Your task to perform on an android device: Open calendar and show me the second week of next month Image 0: 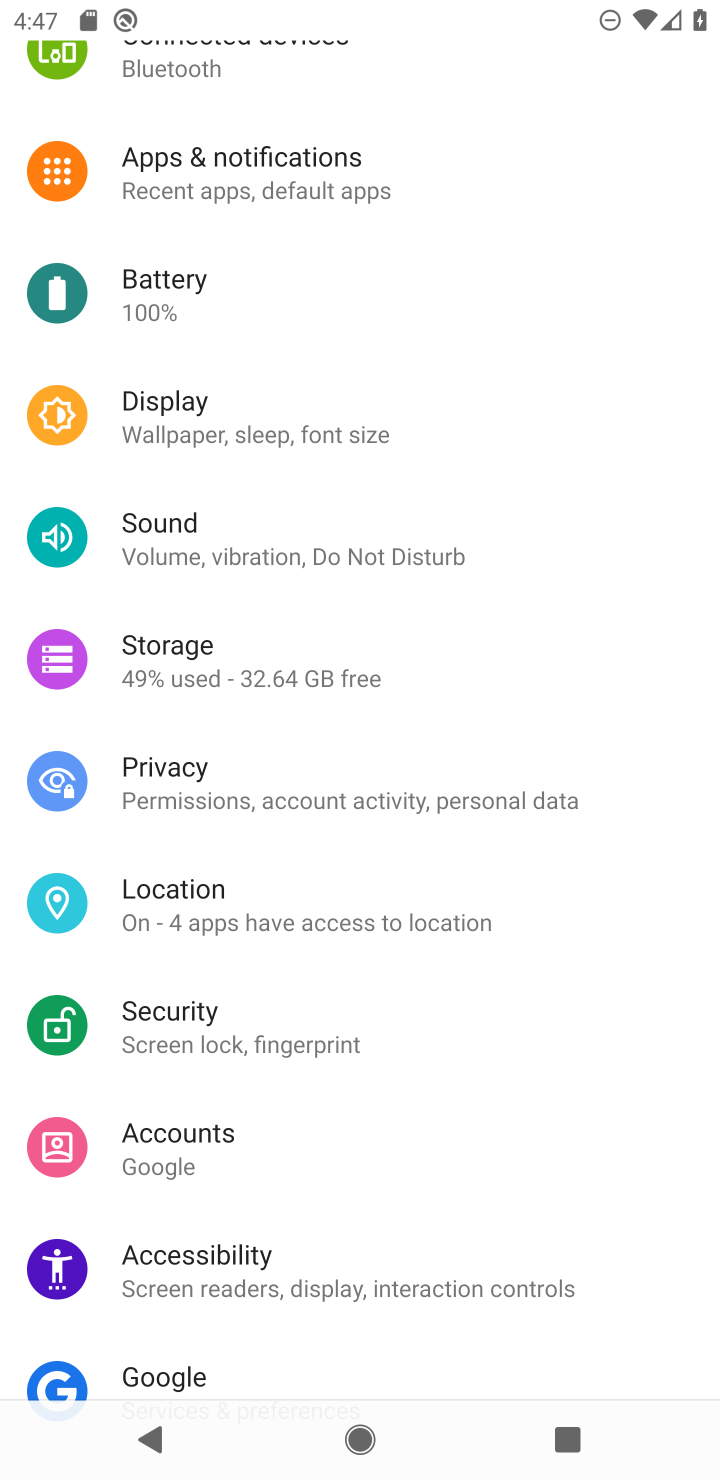
Step 0: press home button
Your task to perform on an android device: Open calendar and show me the second week of next month Image 1: 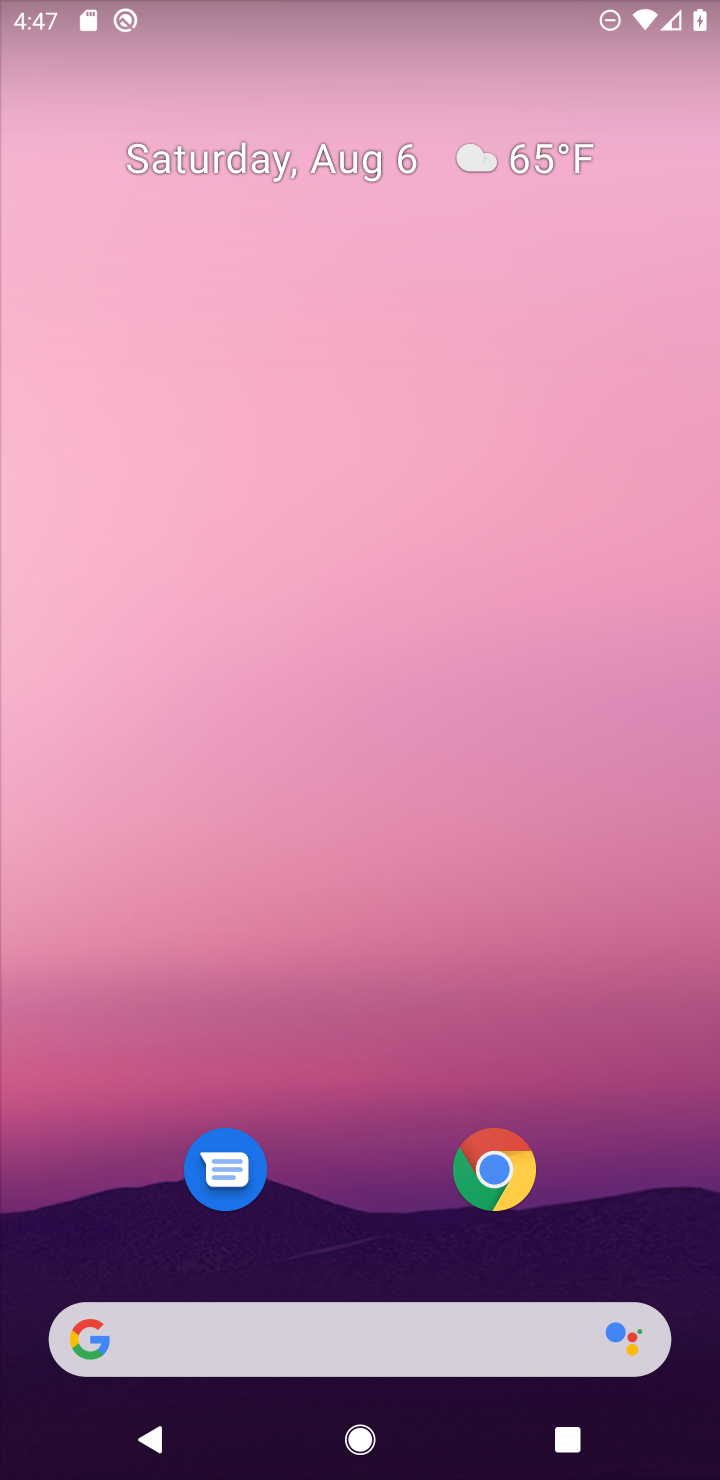
Step 1: drag from (358, 1136) to (98, 5)
Your task to perform on an android device: Open calendar and show me the second week of next month Image 2: 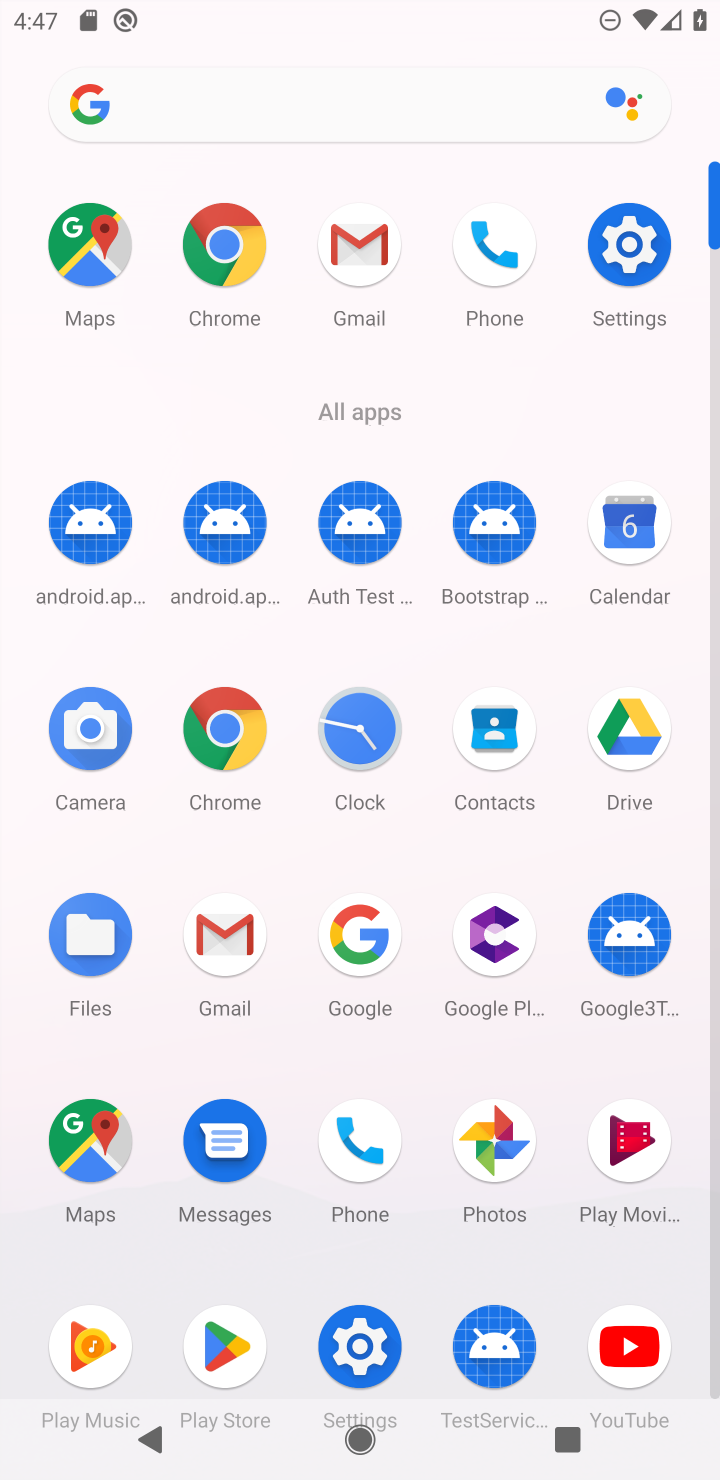
Step 2: click (625, 530)
Your task to perform on an android device: Open calendar and show me the second week of next month Image 3: 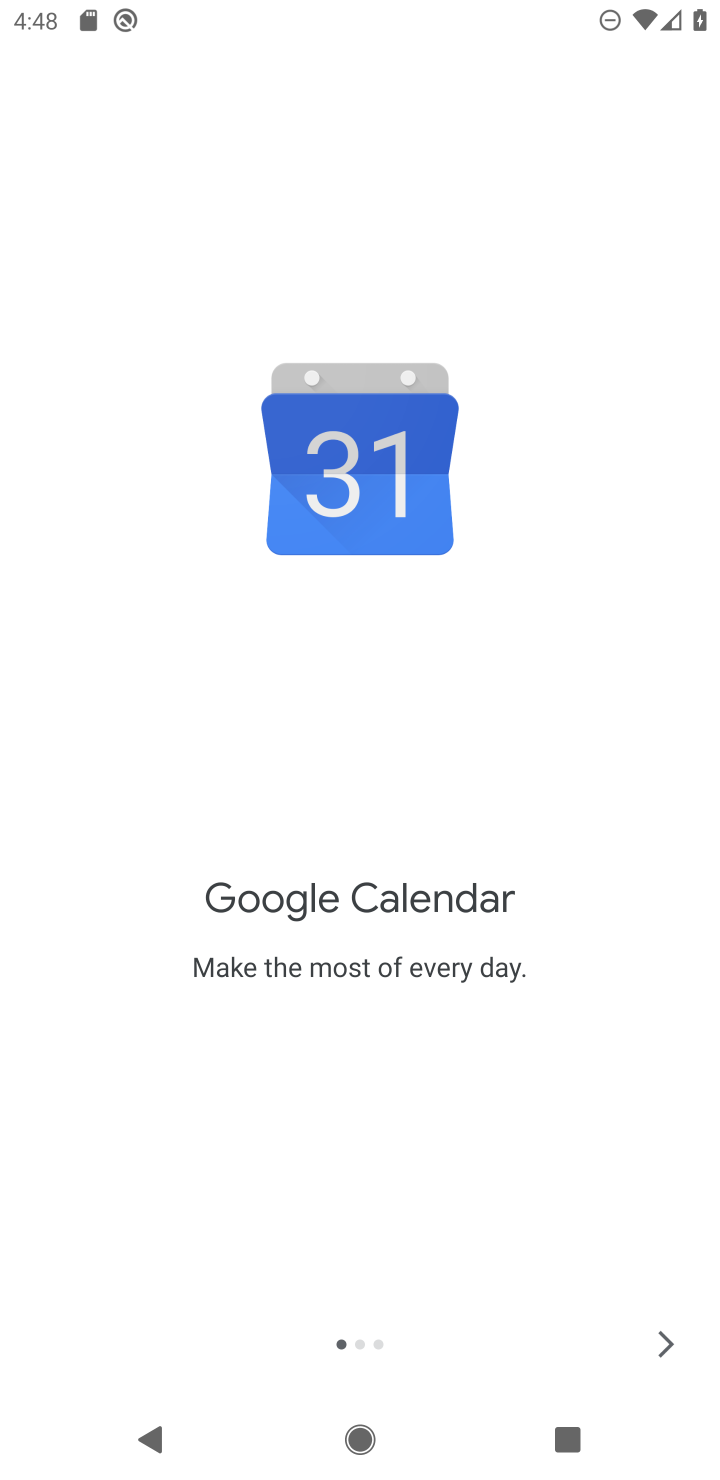
Step 3: click (675, 1337)
Your task to perform on an android device: Open calendar and show me the second week of next month Image 4: 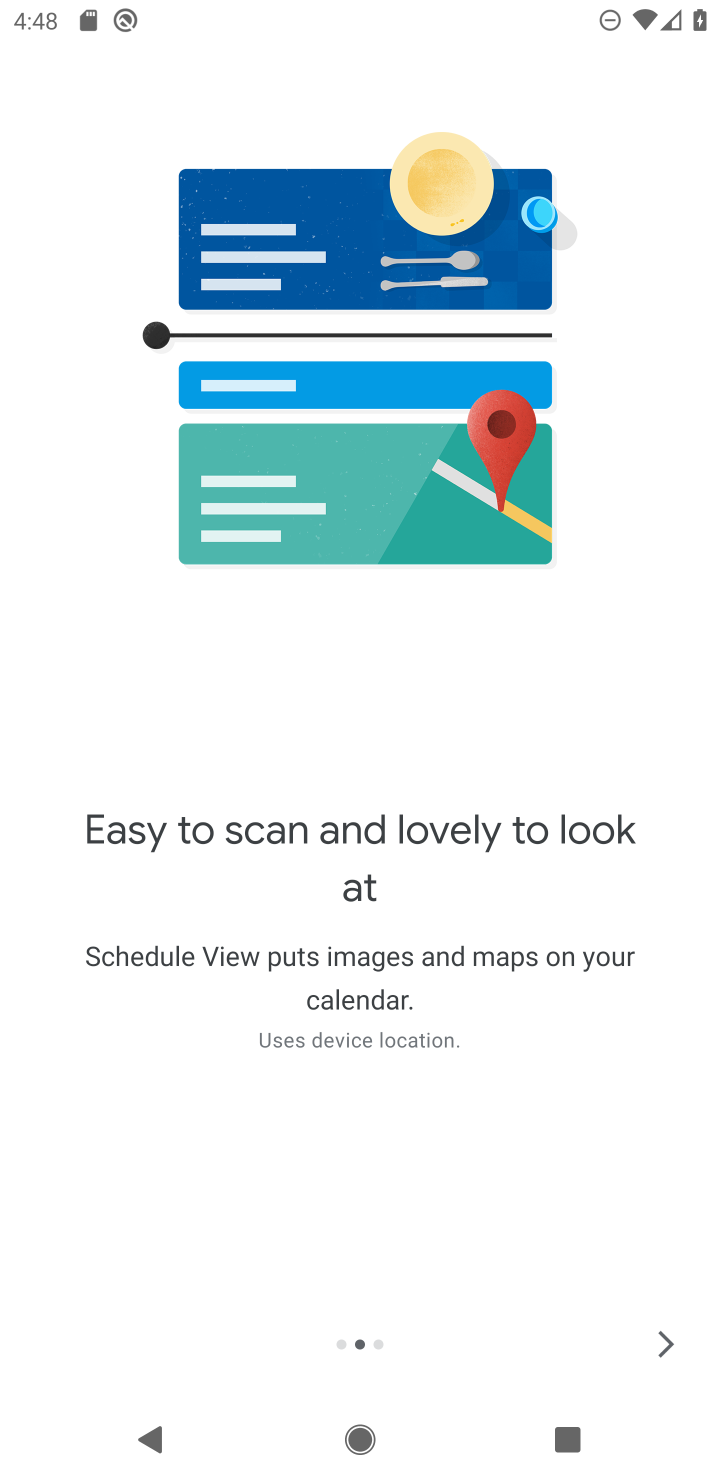
Step 4: click (668, 1342)
Your task to perform on an android device: Open calendar and show me the second week of next month Image 5: 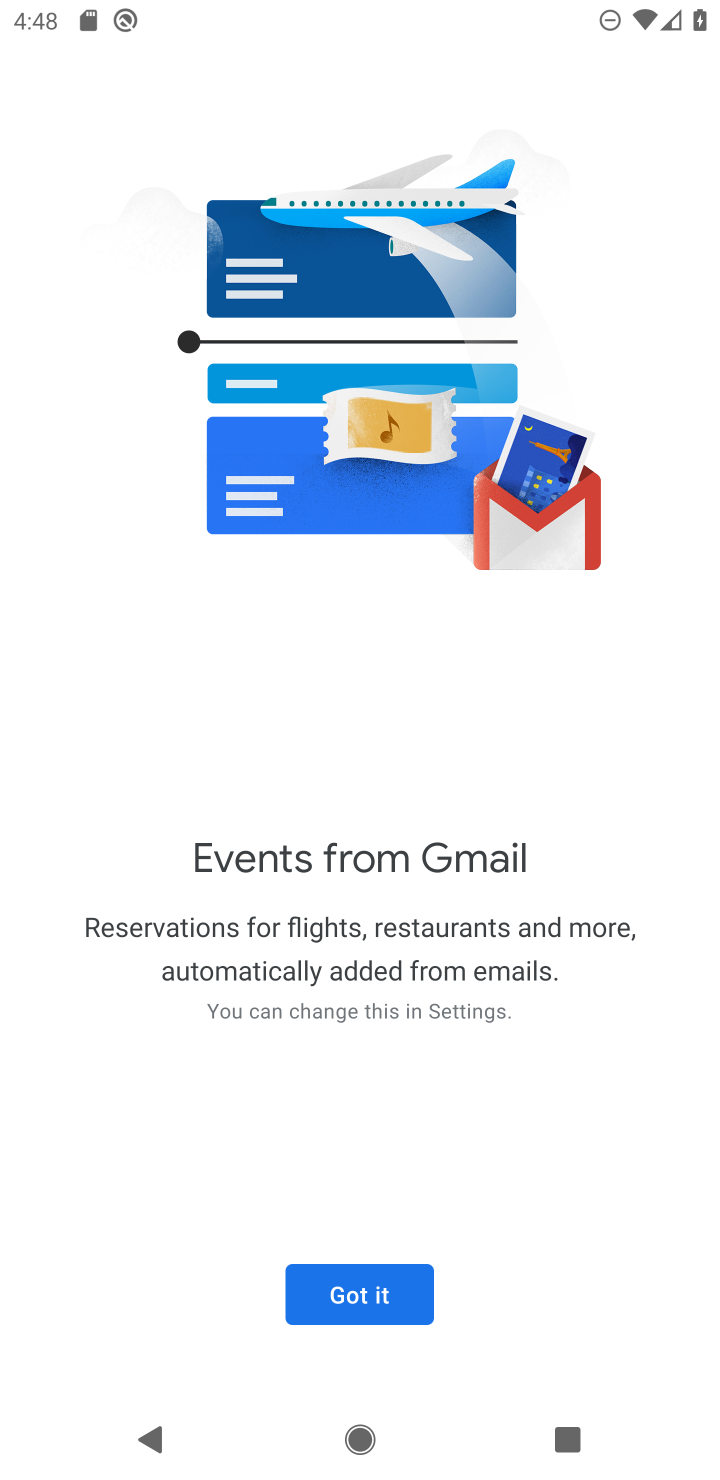
Step 5: click (361, 1290)
Your task to perform on an android device: Open calendar and show me the second week of next month Image 6: 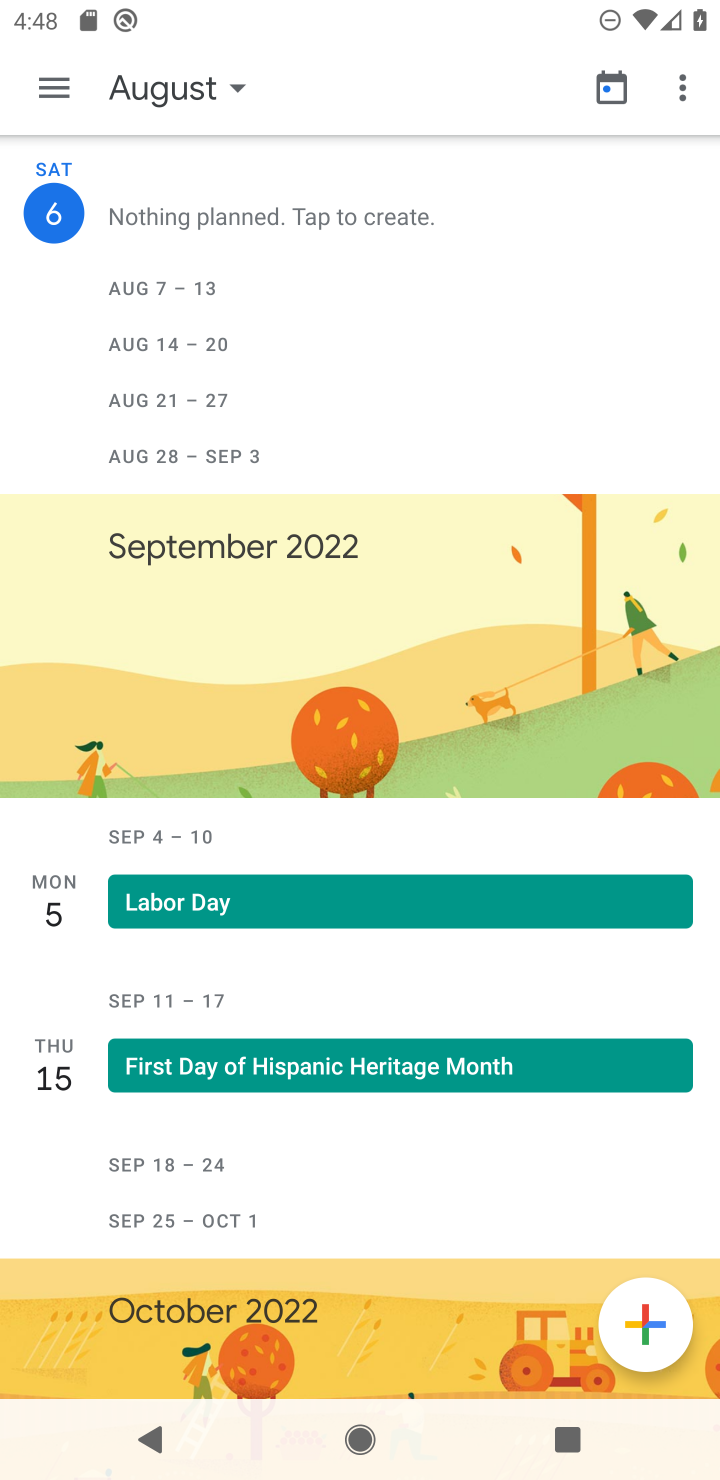
Step 6: click (211, 90)
Your task to perform on an android device: Open calendar and show me the second week of next month Image 7: 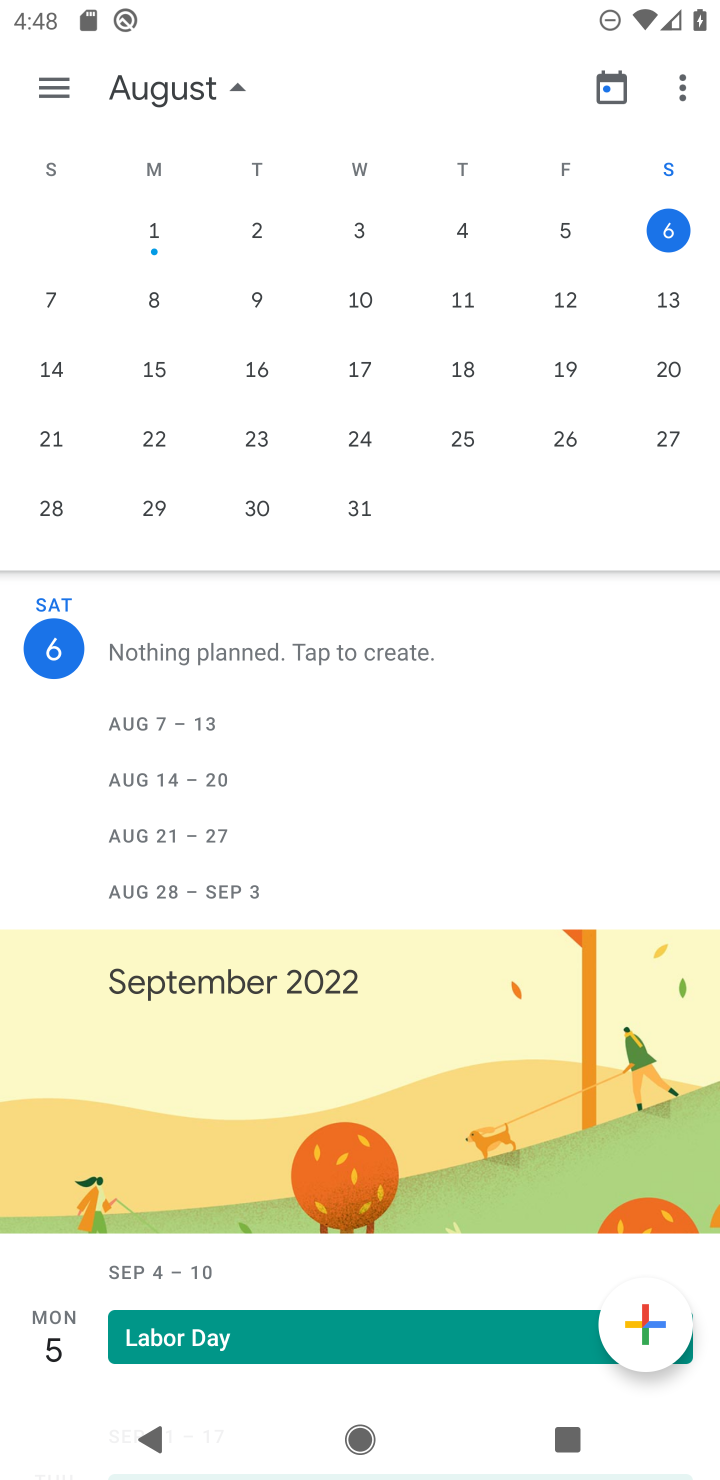
Step 7: drag from (705, 365) to (124, 357)
Your task to perform on an android device: Open calendar and show me the second week of next month Image 8: 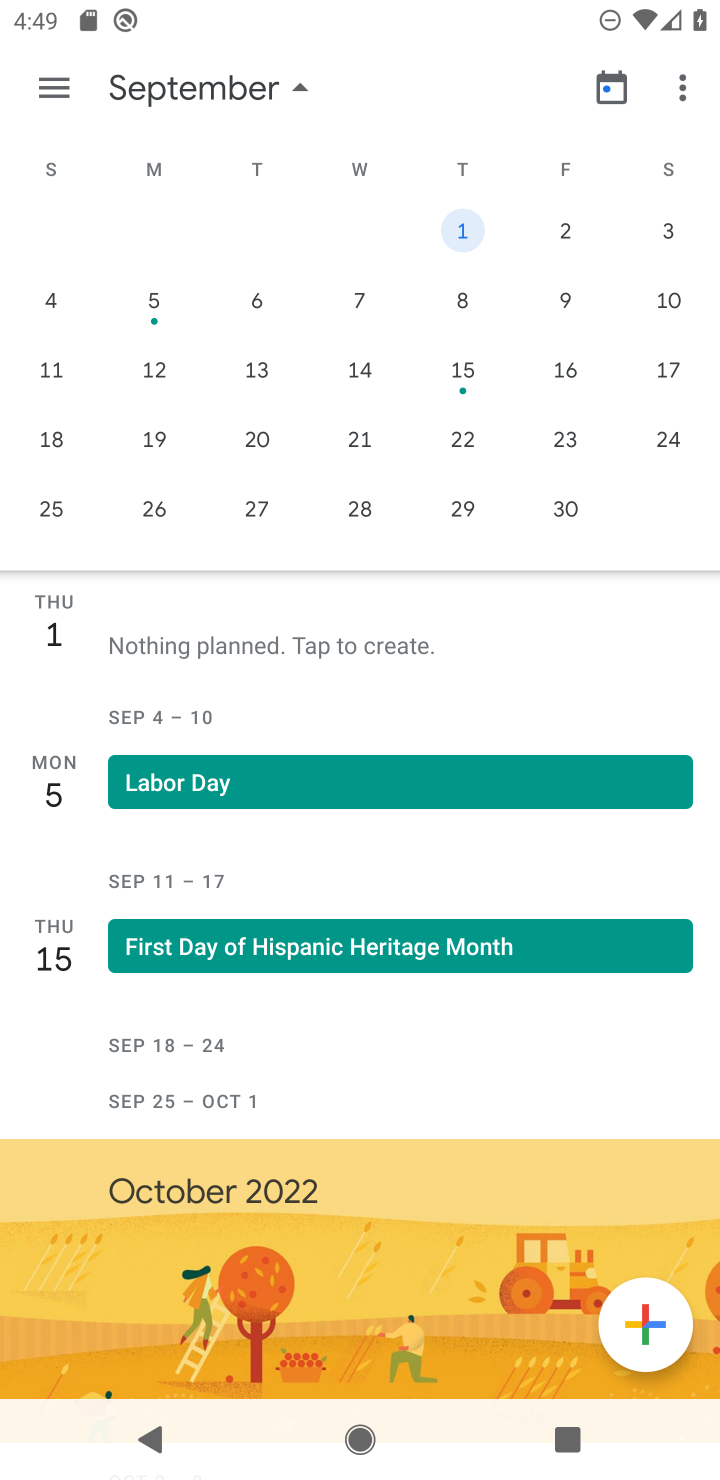
Step 8: click (75, 302)
Your task to perform on an android device: Open calendar and show me the second week of next month Image 9: 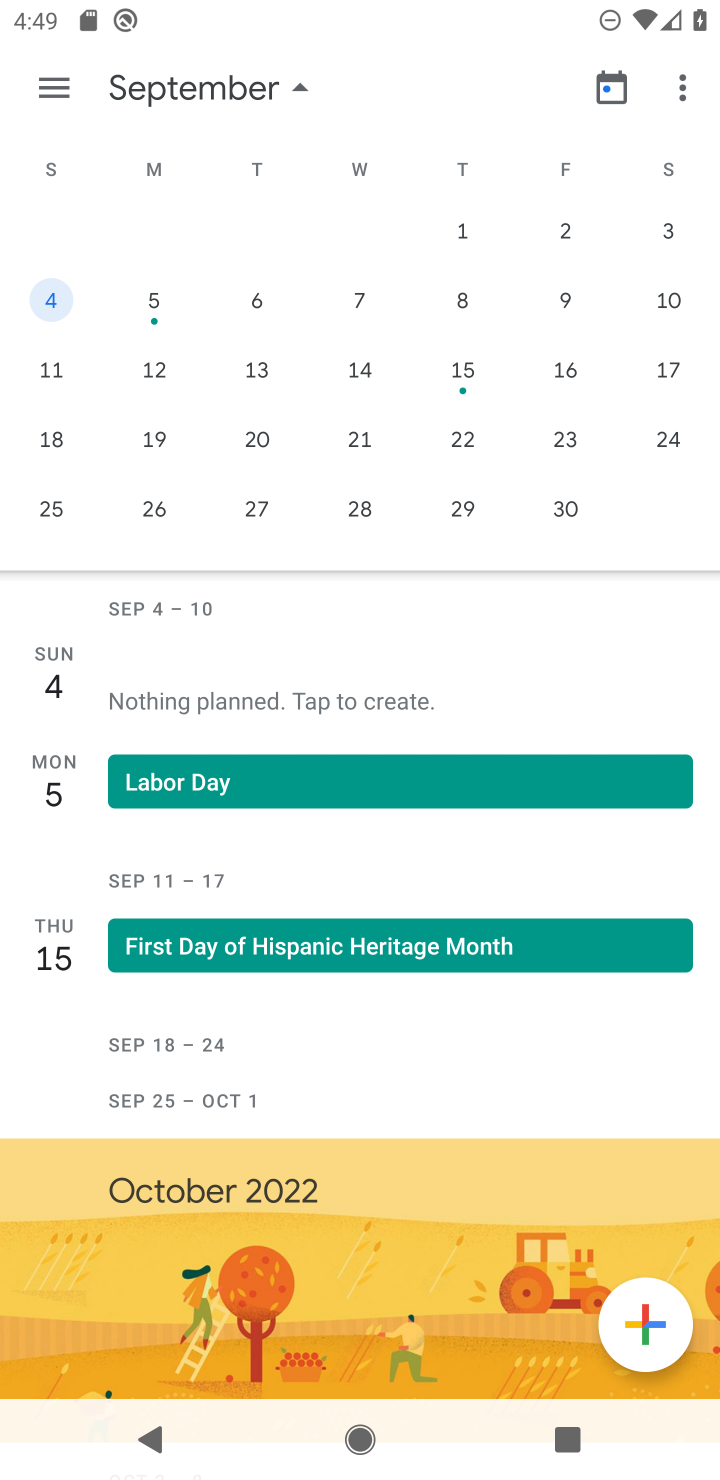
Step 9: task complete